Your task to perform on an android device: What's the weather going to be this weekend? Image 0: 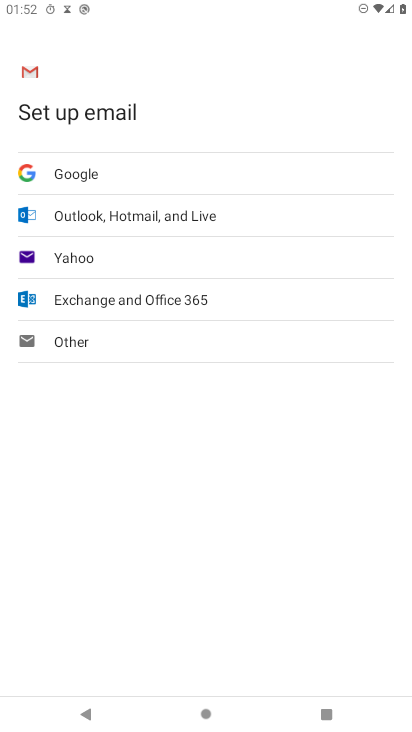
Step 0: press home button
Your task to perform on an android device: What's the weather going to be this weekend? Image 1: 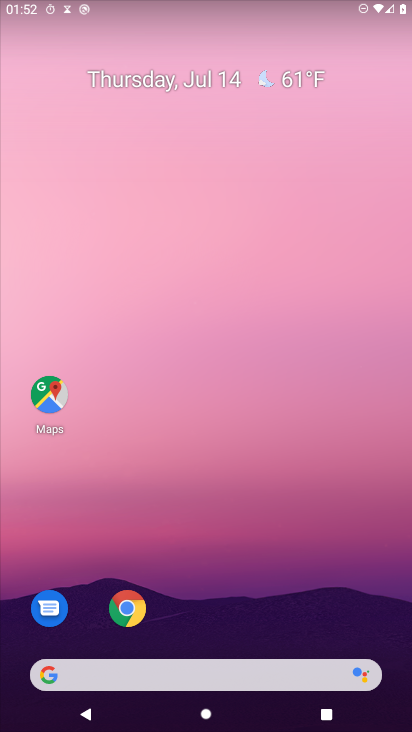
Step 1: click (47, 672)
Your task to perform on an android device: What's the weather going to be this weekend? Image 2: 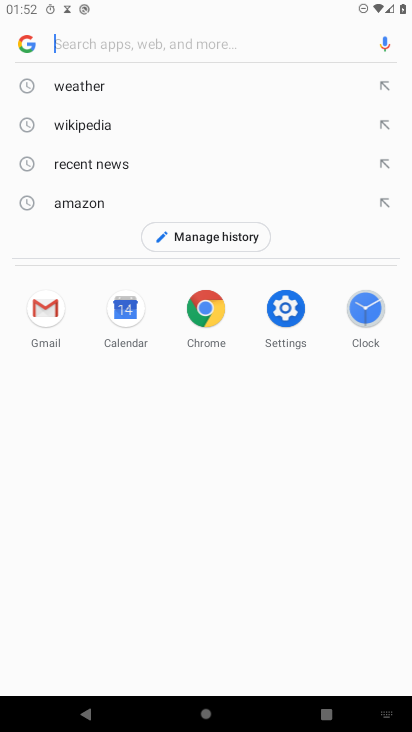
Step 2: type "What's the weather going to be this weekend?"
Your task to perform on an android device: What's the weather going to be this weekend? Image 3: 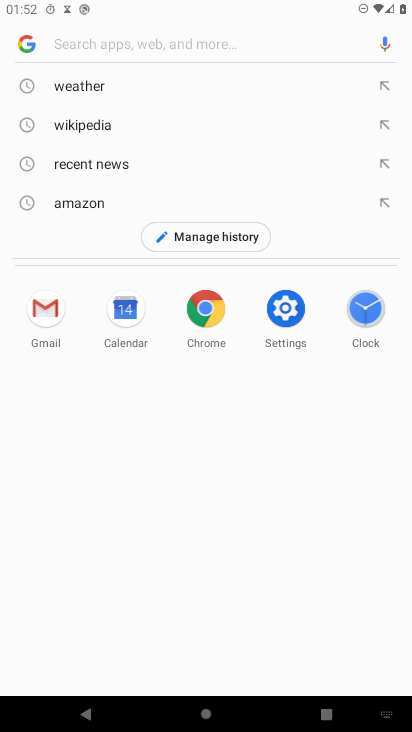
Step 3: click (77, 45)
Your task to perform on an android device: What's the weather going to be this weekend? Image 4: 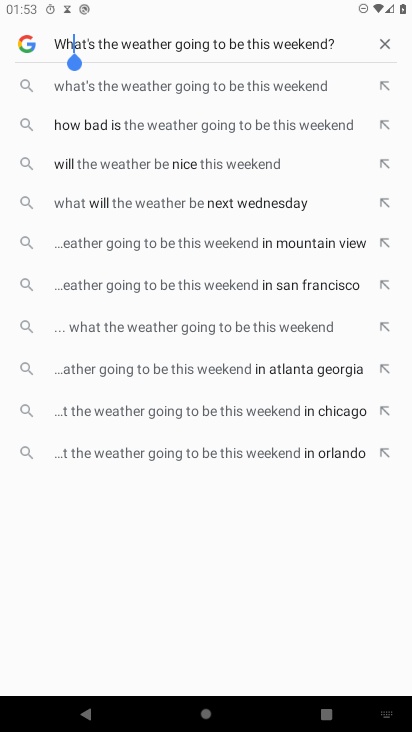
Step 4: press enter
Your task to perform on an android device: What's the weather going to be this weekend? Image 5: 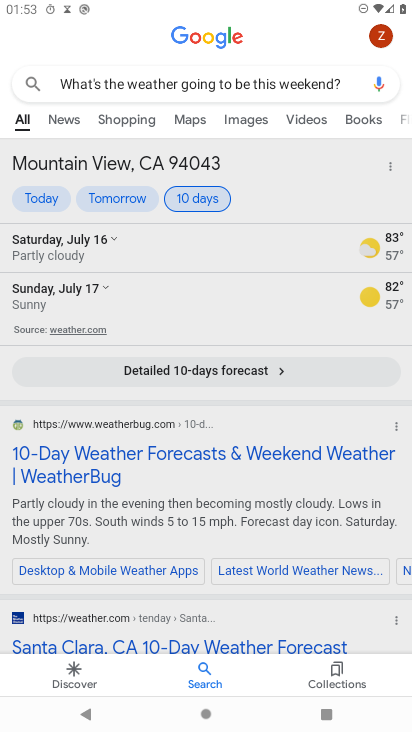
Step 5: task complete